Your task to perform on an android device: check out phone information Image 0: 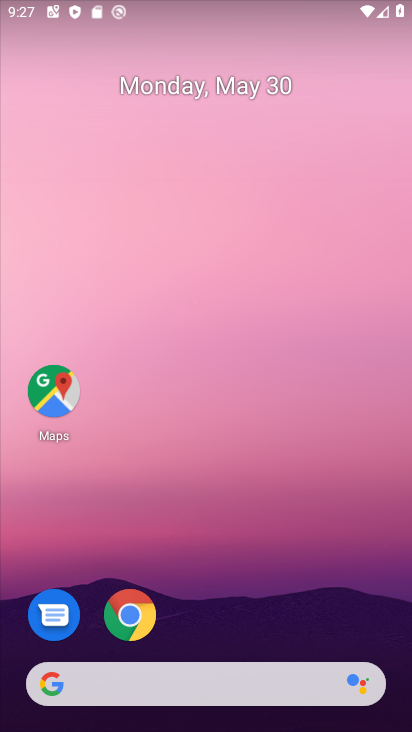
Step 0: drag from (277, 385) to (137, 94)
Your task to perform on an android device: check out phone information Image 1: 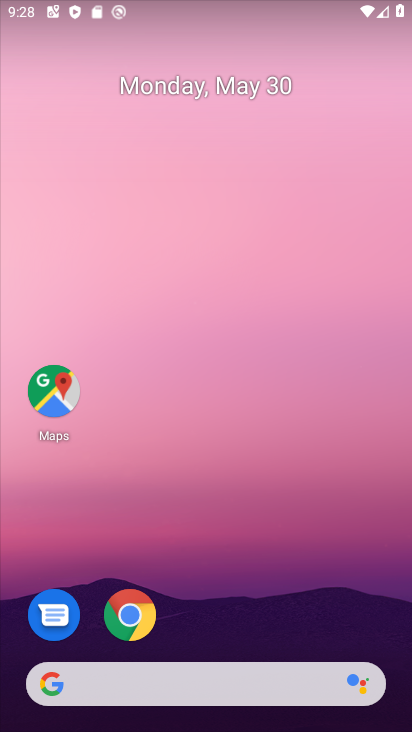
Step 1: drag from (294, 559) to (209, 23)
Your task to perform on an android device: check out phone information Image 2: 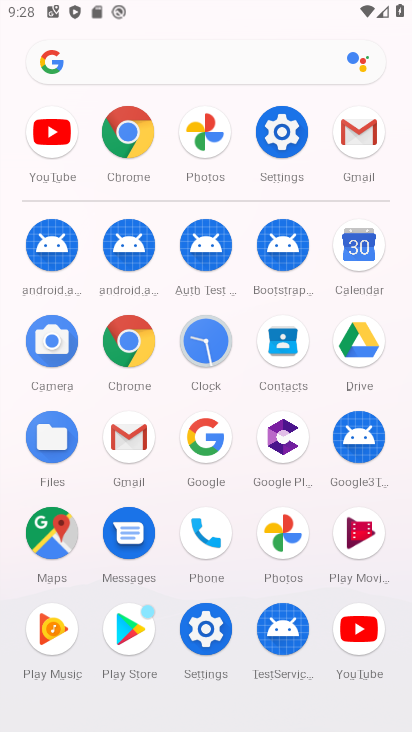
Step 2: click (209, 624)
Your task to perform on an android device: check out phone information Image 3: 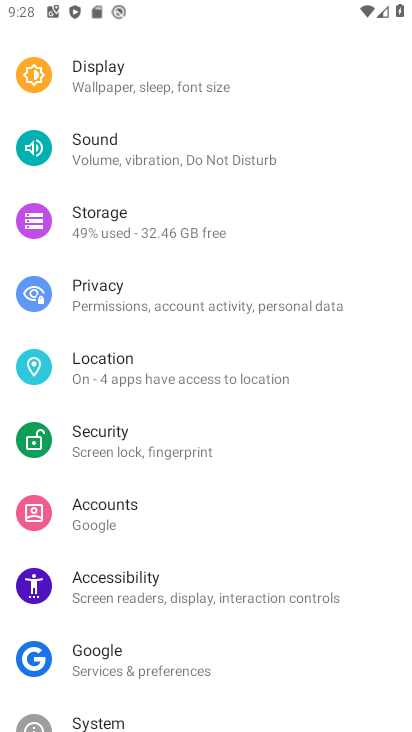
Step 3: drag from (230, 540) to (199, 40)
Your task to perform on an android device: check out phone information Image 4: 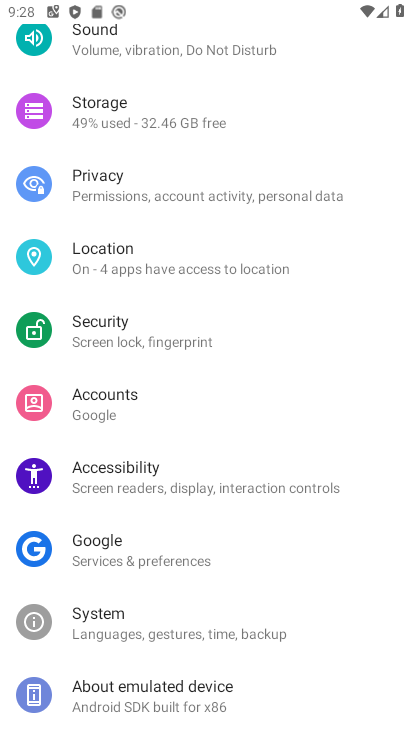
Step 4: click (168, 690)
Your task to perform on an android device: check out phone information Image 5: 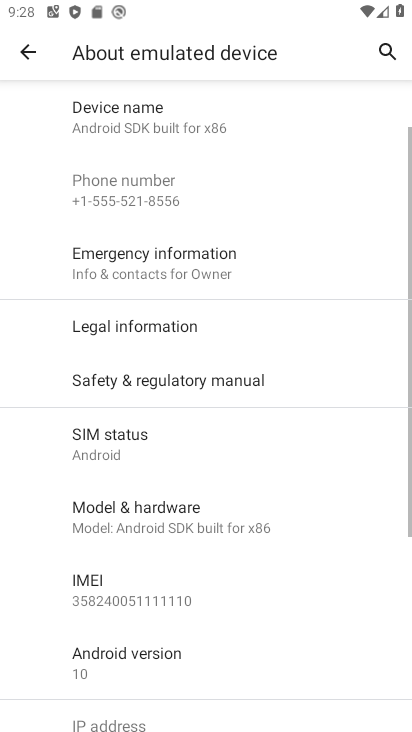
Step 5: task complete